Your task to perform on an android device: turn off priority inbox in the gmail app Image 0: 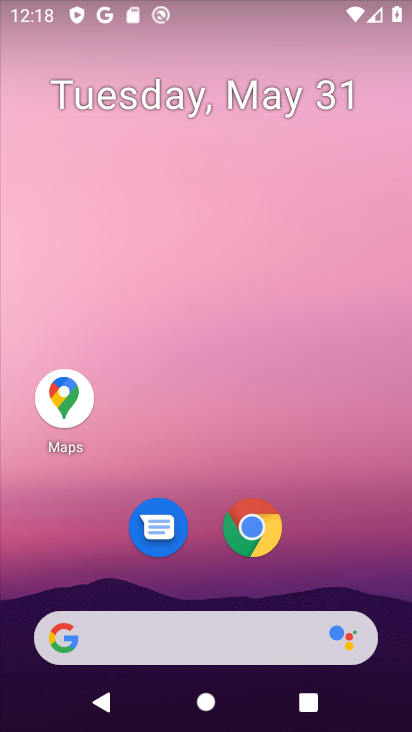
Step 0: drag from (262, 673) to (189, 202)
Your task to perform on an android device: turn off priority inbox in the gmail app Image 1: 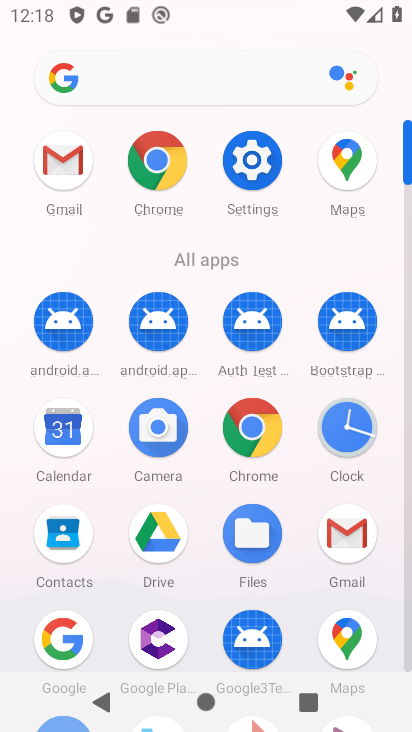
Step 1: click (326, 530)
Your task to perform on an android device: turn off priority inbox in the gmail app Image 2: 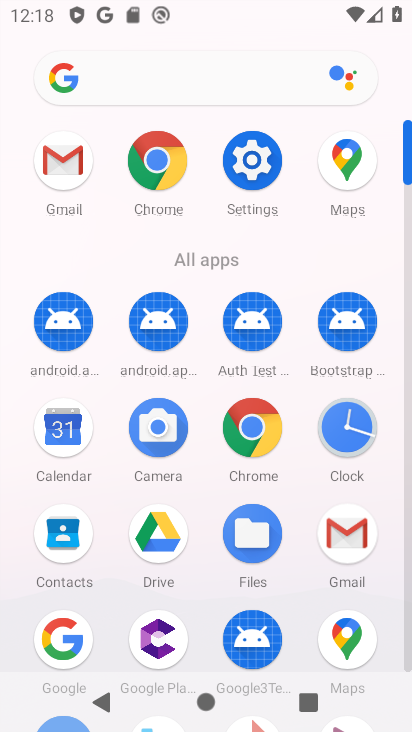
Step 2: click (334, 532)
Your task to perform on an android device: turn off priority inbox in the gmail app Image 3: 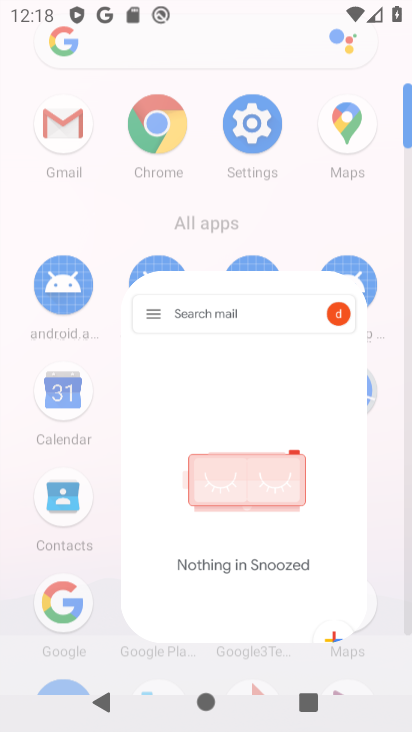
Step 3: click (345, 521)
Your task to perform on an android device: turn off priority inbox in the gmail app Image 4: 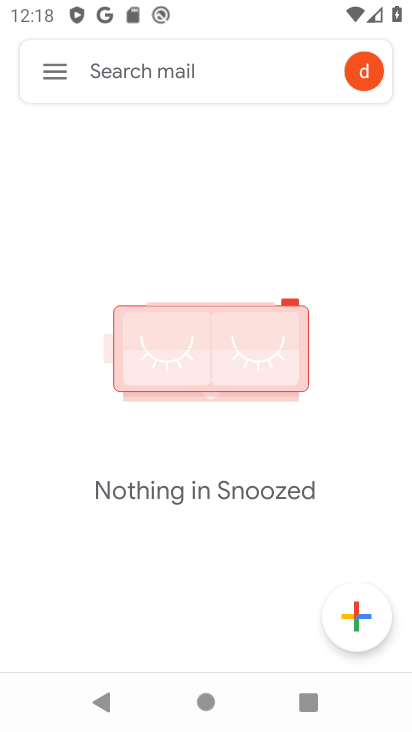
Step 4: click (50, 74)
Your task to perform on an android device: turn off priority inbox in the gmail app Image 5: 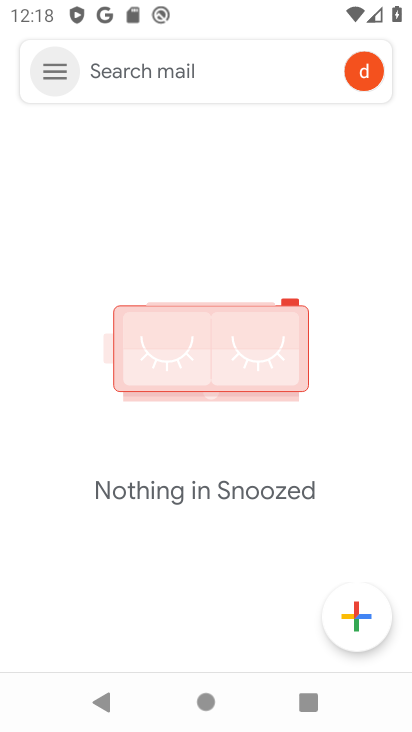
Step 5: click (43, 95)
Your task to perform on an android device: turn off priority inbox in the gmail app Image 6: 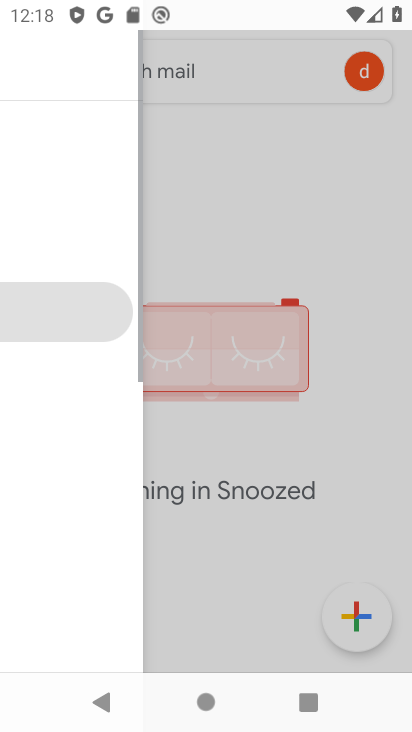
Step 6: click (51, 75)
Your task to perform on an android device: turn off priority inbox in the gmail app Image 7: 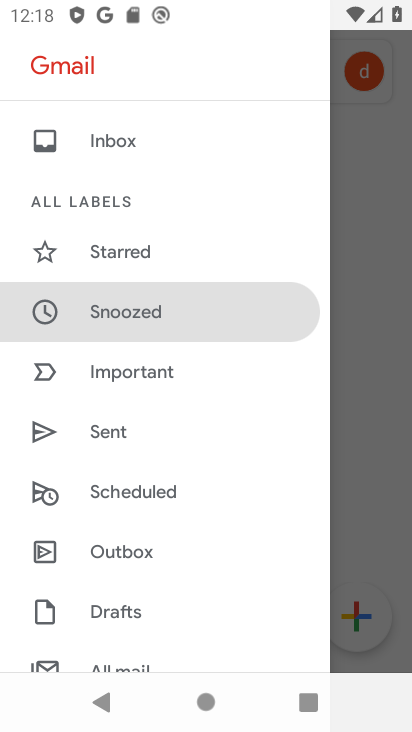
Step 7: drag from (116, 468) to (111, 96)
Your task to perform on an android device: turn off priority inbox in the gmail app Image 8: 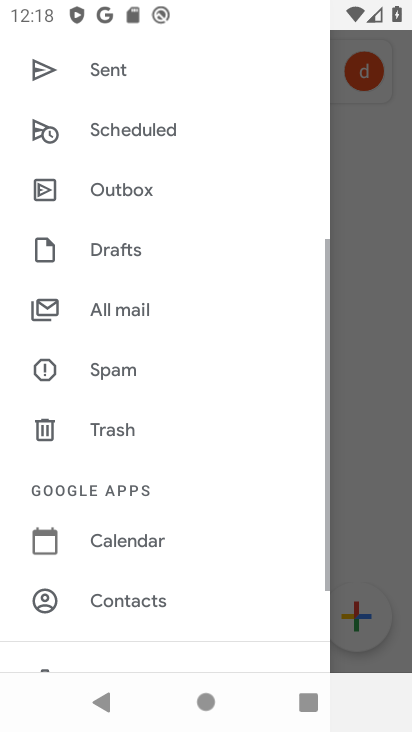
Step 8: drag from (132, 353) to (96, 162)
Your task to perform on an android device: turn off priority inbox in the gmail app Image 9: 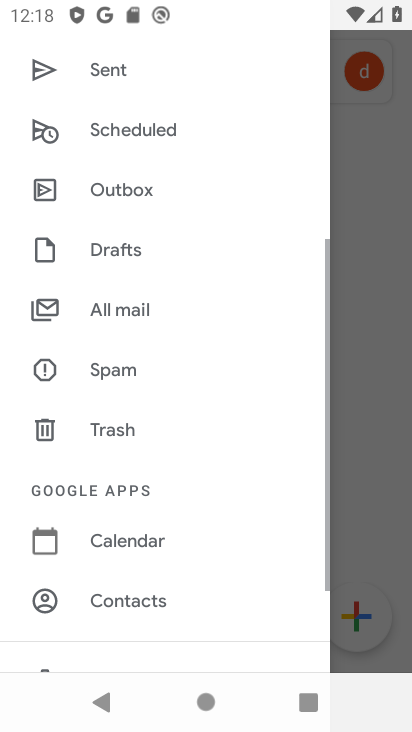
Step 9: drag from (135, 531) to (127, 149)
Your task to perform on an android device: turn off priority inbox in the gmail app Image 10: 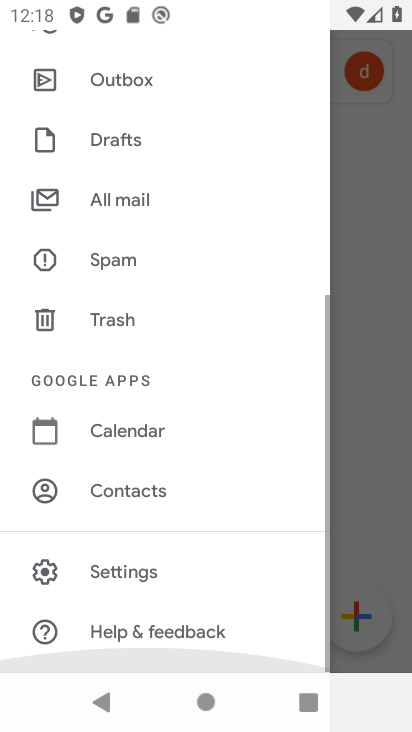
Step 10: drag from (132, 452) to (97, 125)
Your task to perform on an android device: turn off priority inbox in the gmail app Image 11: 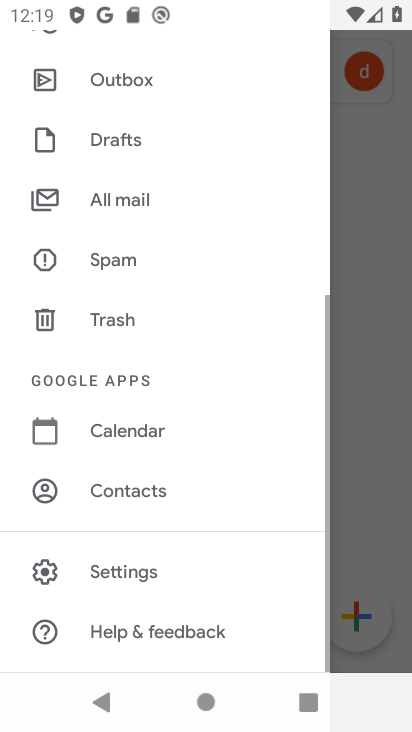
Step 11: click (101, 570)
Your task to perform on an android device: turn off priority inbox in the gmail app Image 12: 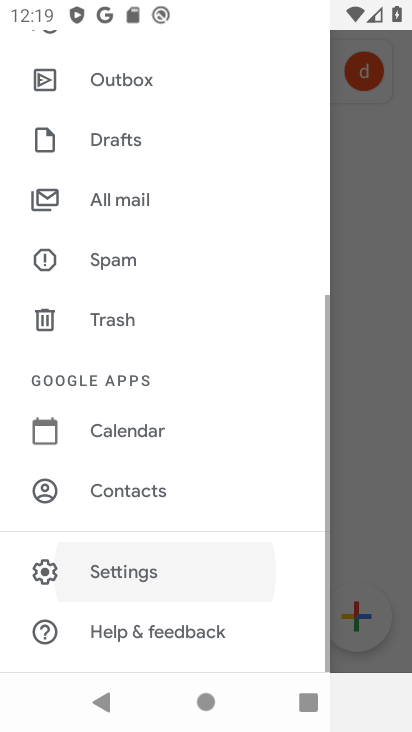
Step 12: click (101, 570)
Your task to perform on an android device: turn off priority inbox in the gmail app Image 13: 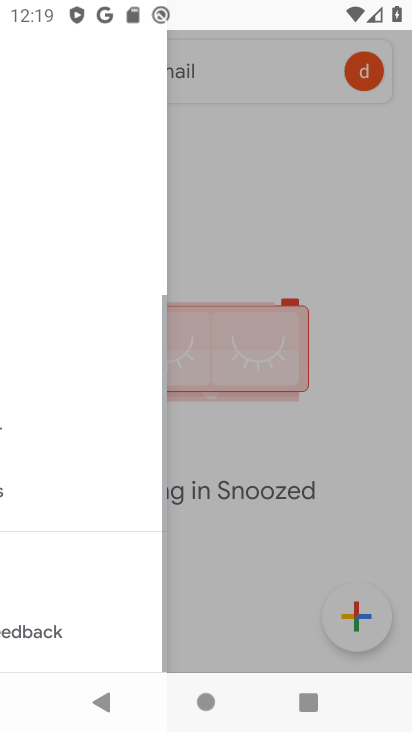
Step 13: click (106, 574)
Your task to perform on an android device: turn off priority inbox in the gmail app Image 14: 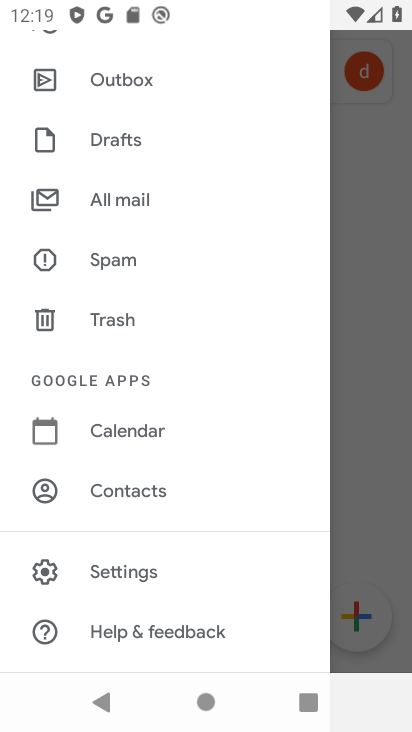
Step 14: click (130, 568)
Your task to perform on an android device: turn off priority inbox in the gmail app Image 15: 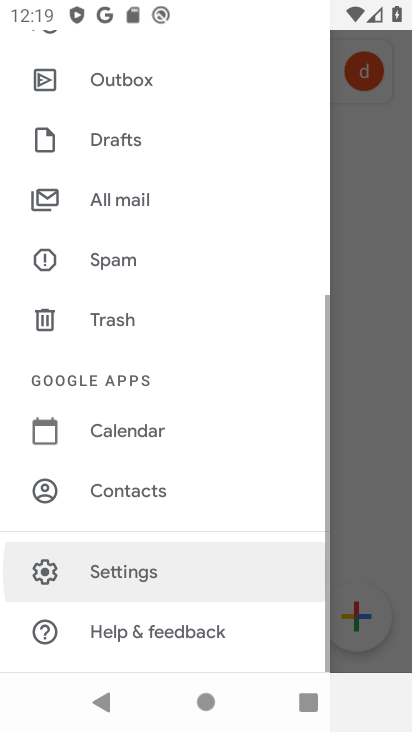
Step 15: click (130, 567)
Your task to perform on an android device: turn off priority inbox in the gmail app Image 16: 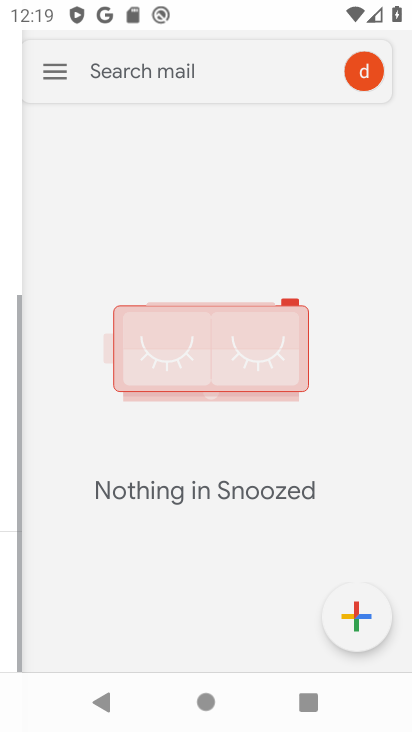
Step 16: click (136, 562)
Your task to perform on an android device: turn off priority inbox in the gmail app Image 17: 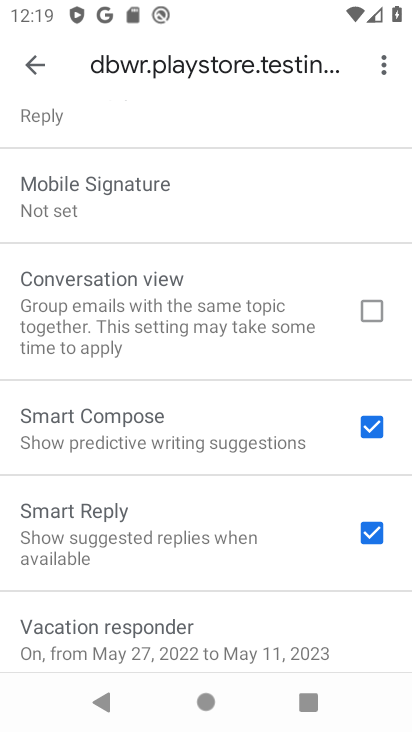
Step 17: drag from (59, 105) to (182, 613)
Your task to perform on an android device: turn off priority inbox in the gmail app Image 18: 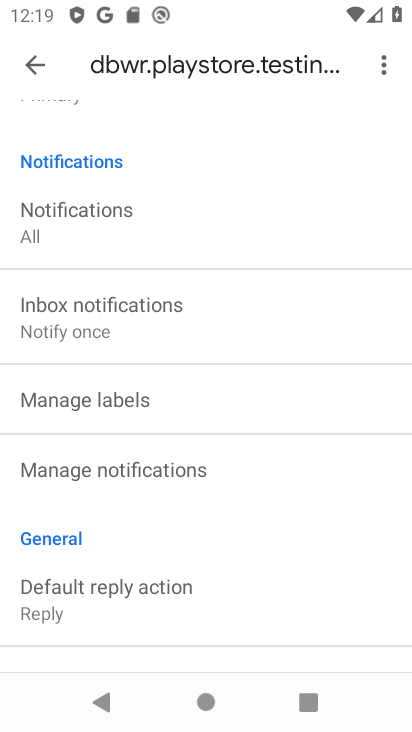
Step 18: drag from (64, 185) to (139, 587)
Your task to perform on an android device: turn off priority inbox in the gmail app Image 19: 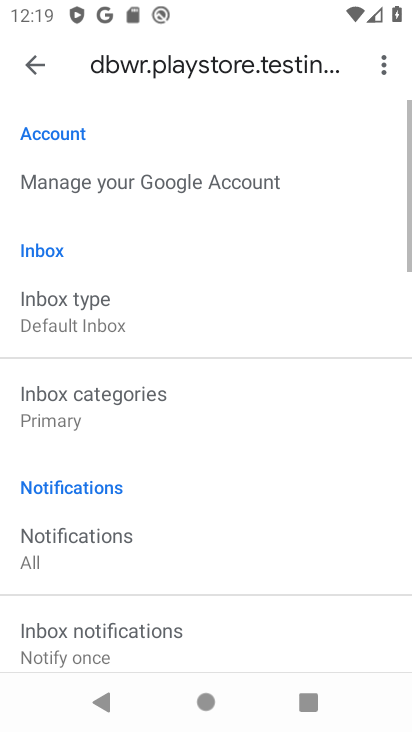
Step 19: drag from (77, 231) to (130, 556)
Your task to perform on an android device: turn off priority inbox in the gmail app Image 20: 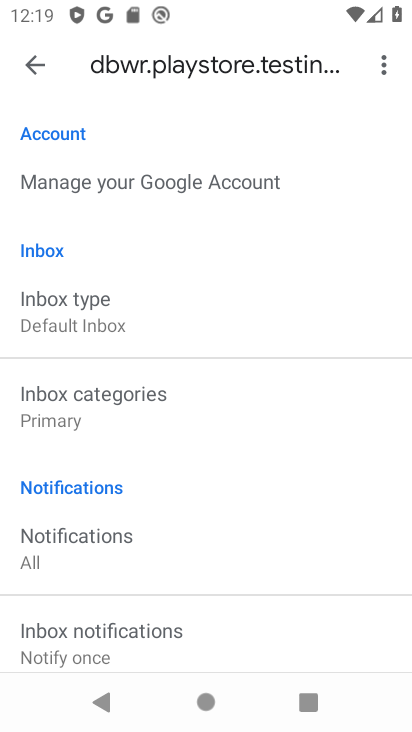
Step 20: drag from (64, 243) to (96, 532)
Your task to perform on an android device: turn off priority inbox in the gmail app Image 21: 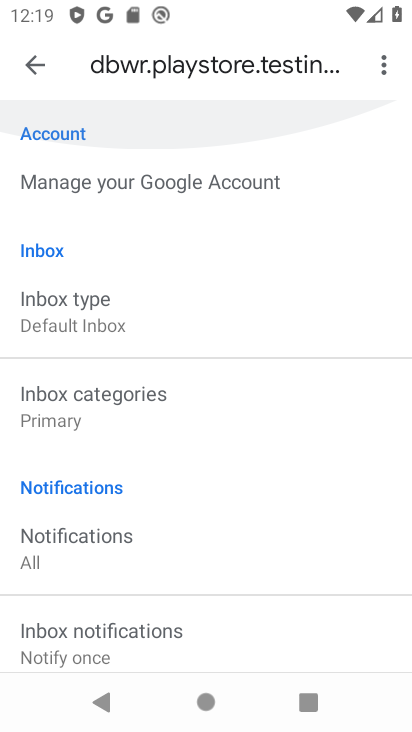
Step 21: drag from (75, 222) to (112, 553)
Your task to perform on an android device: turn off priority inbox in the gmail app Image 22: 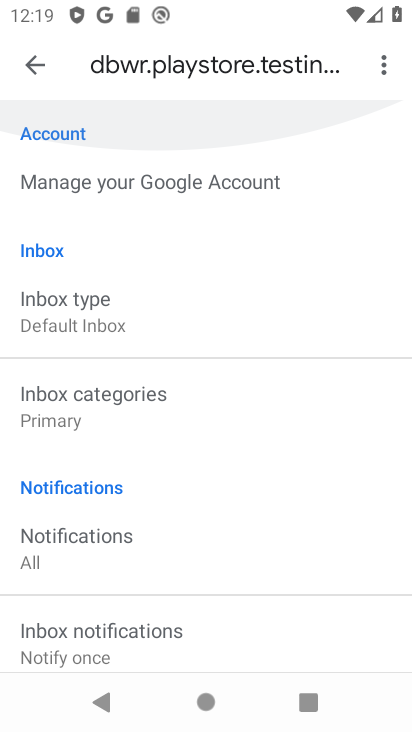
Step 22: drag from (84, 260) to (109, 543)
Your task to perform on an android device: turn off priority inbox in the gmail app Image 23: 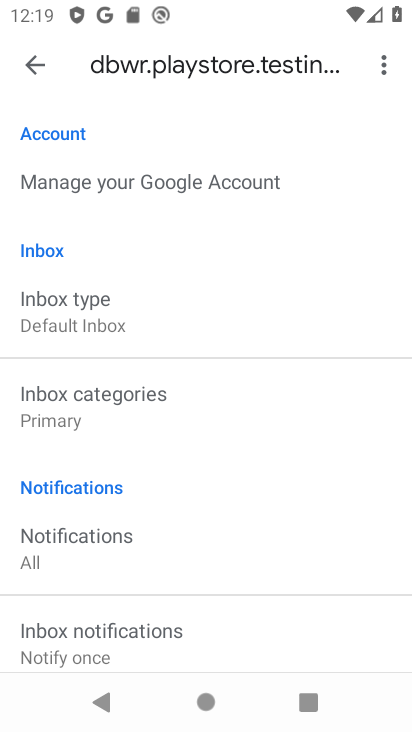
Step 23: click (64, 339)
Your task to perform on an android device: turn off priority inbox in the gmail app Image 24: 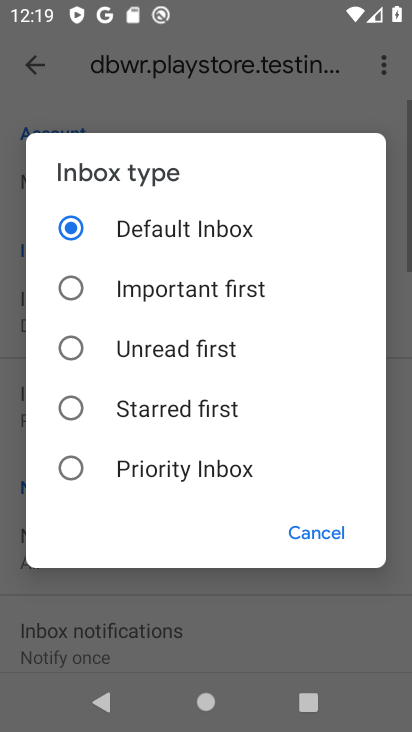
Step 24: click (73, 335)
Your task to perform on an android device: turn off priority inbox in the gmail app Image 25: 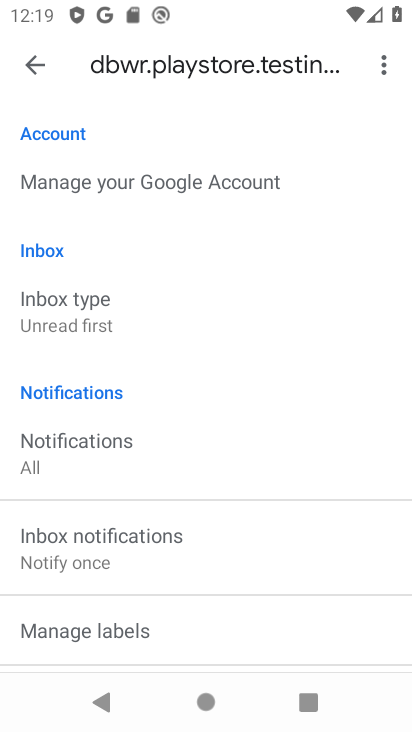
Step 25: click (64, 323)
Your task to perform on an android device: turn off priority inbox in the gmail app Image 26: 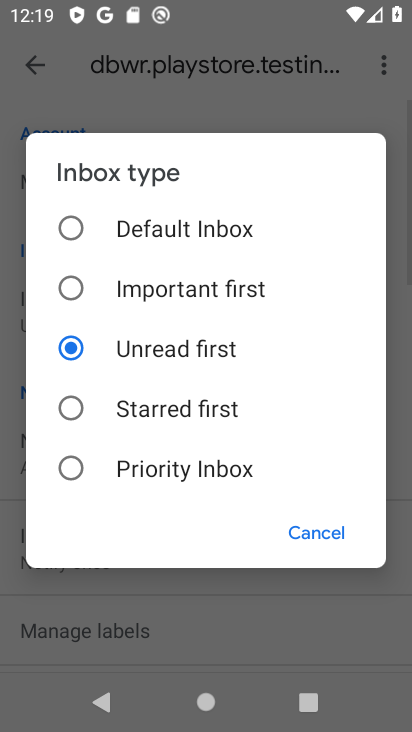
Step 26: click (61, 467)
Your task to perform on an android device: turn off priority inbox in the gmail app Image 27: 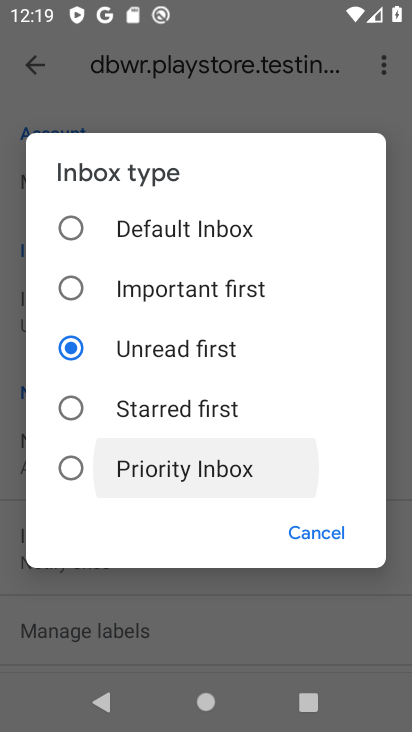
Step 27: click (64, 465)
Your task to perform on an android device: turn off priority inbox in the gmail app Image 28: 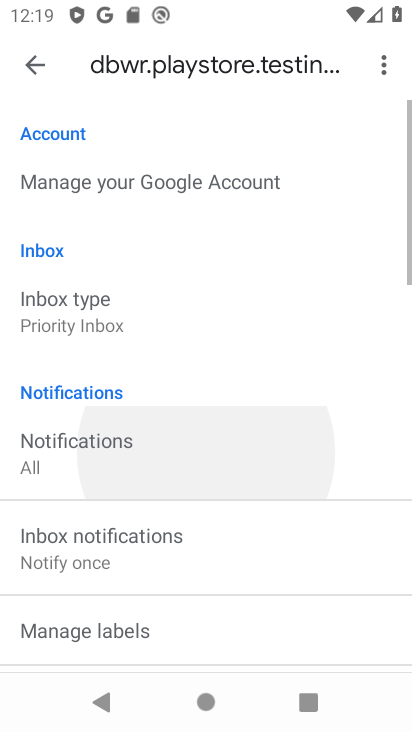
Step 28: click (67, 463)
Your task to perform on an android device: turn off priority inbox in the gmail app Image 29: 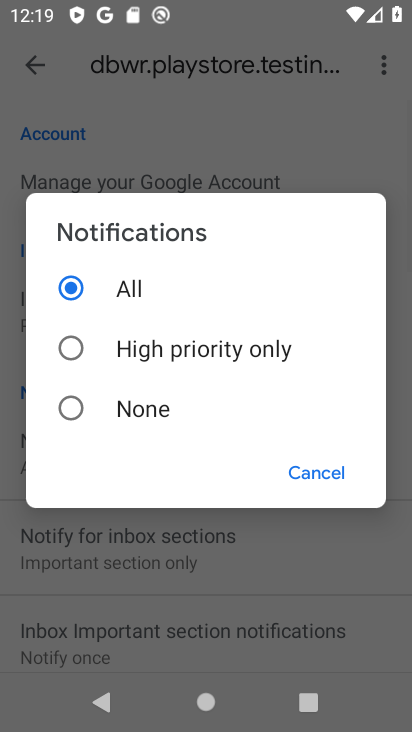
Step 29: click (316, 460)
Your task to perform on an android device: turn off priority inbox in the gmail app Image 30: 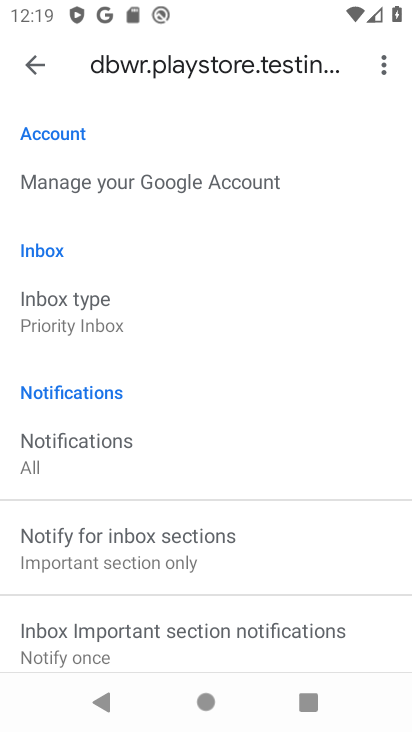
Step 30: task complete